Your task to perform on an android device: What's the weather today? Image 0: 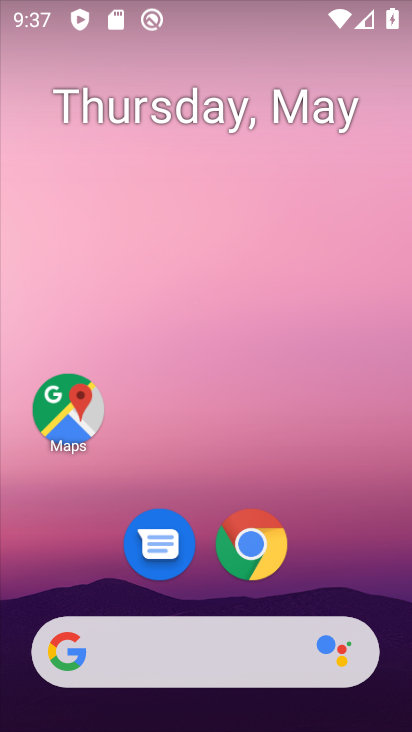
Step 0: drag from (202, 553) to (203, 274)
Your task to perform on an android device: What's the weather today? Image 1: 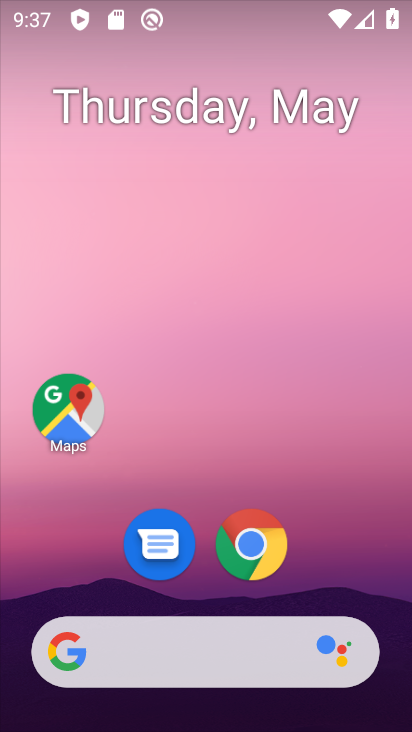
Step 1: click (248, 549)
Your task to perform on an android device: What's the weather today? Image 2: 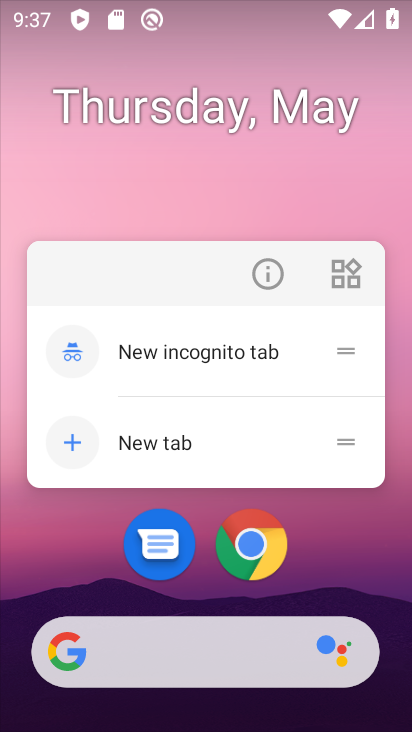
Step 2: click (249, 545)
Your task to perform on an android device: What's the weather today? Image 3: 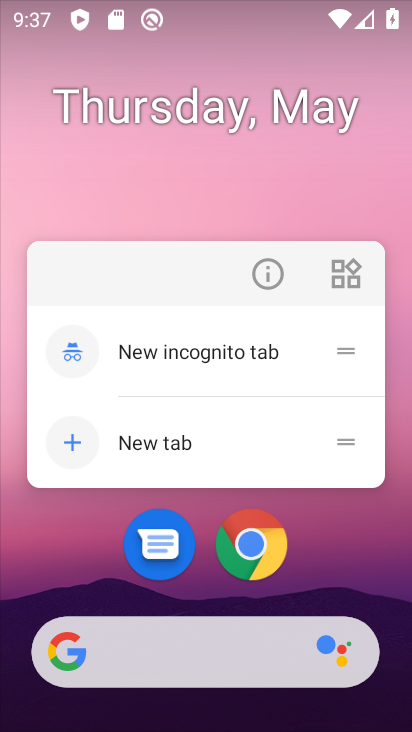
Step 3: click (273, 282)
Your task to perform on an android device: What's the weather today? Image 4: 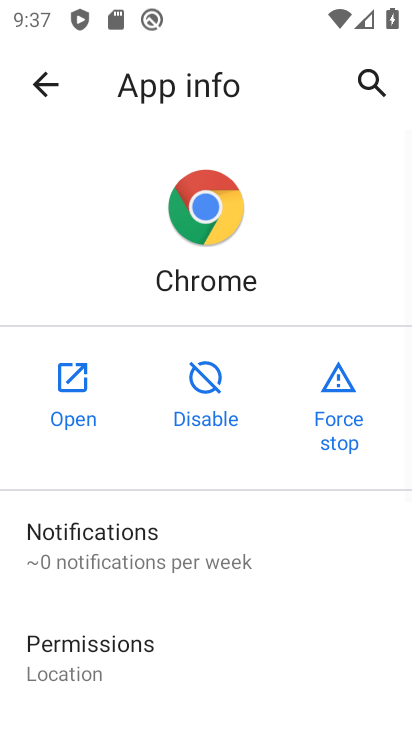
Step 4: click (58, 396)
Your task to perform on an android device: What's the weather today? Image 5: 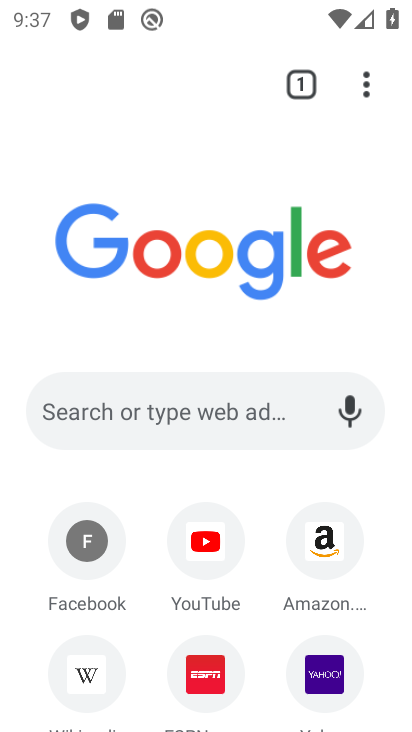
Step 5: click (106, 419)
Your task to perform on an android device: What's the weather today? Image 6: 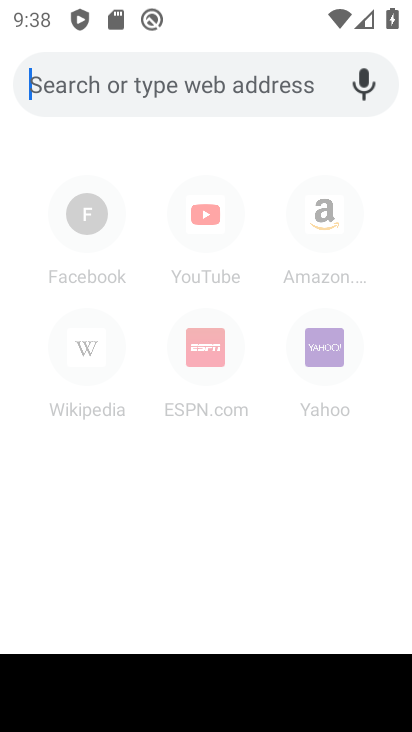
Step 6: type "weather"
Your task to perform on an android device: What's the weather today? Image 7: 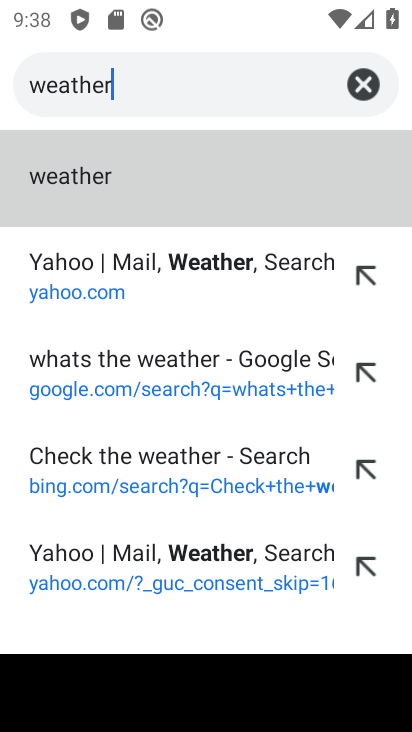
Step 7: click (100, 189)
Your task to perform on an android device: What's the weather today? Image 8: 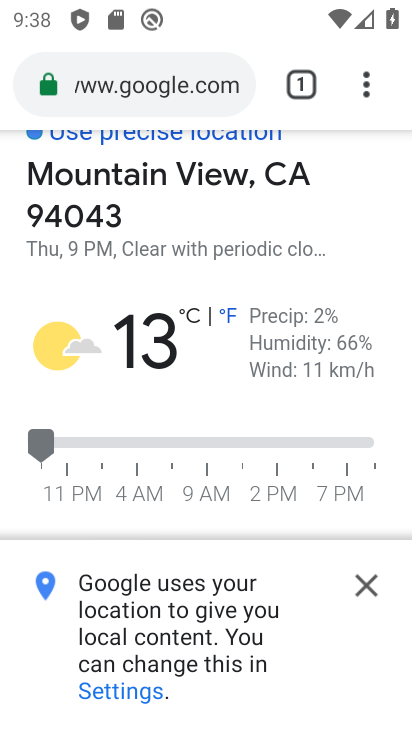
Step 8: task complete